Your task to perform on an android device: Open Yahoo.com Image 0: 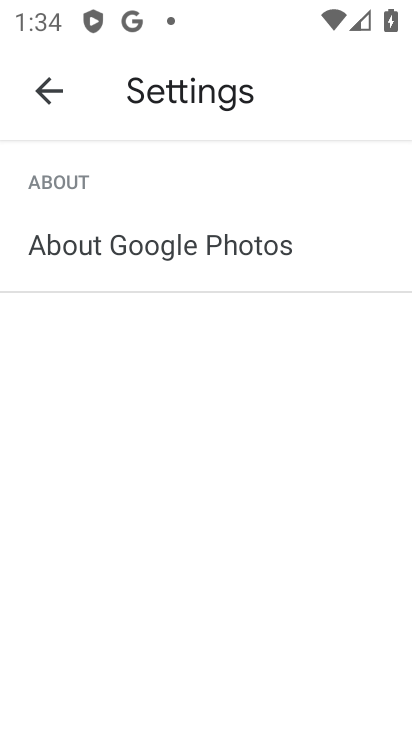
Step 0: press home button
Your task to perform on an android device: Open Yahoo.com Image 1: 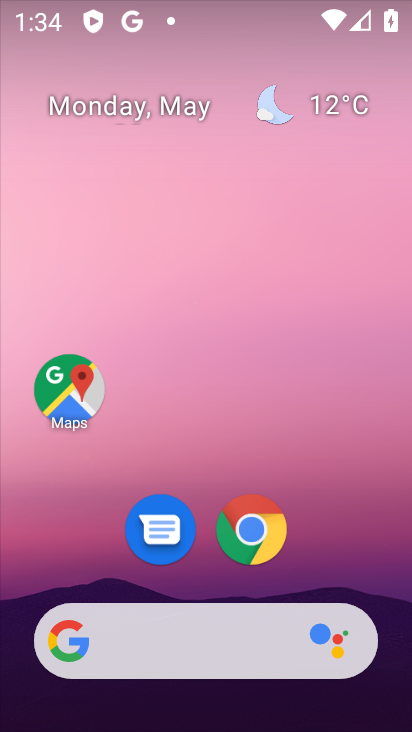
Step 1: click (252, 528)
Your task to perform on an android device: Open Yahoo.com Image 2: 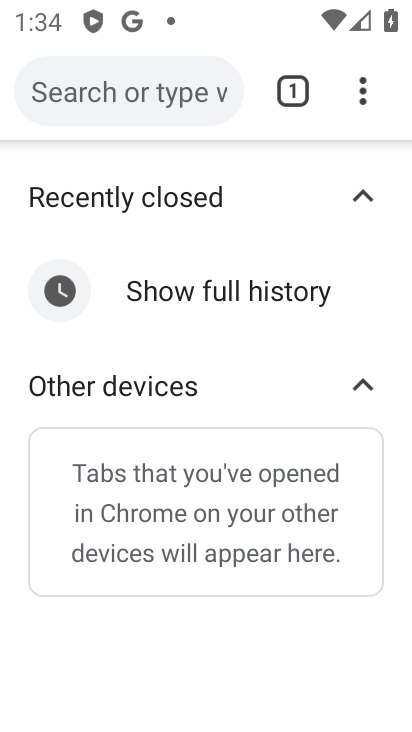
Step 2: click (122, 88)
Your task to perform on an android device: Open Yahoo.com Image 3: 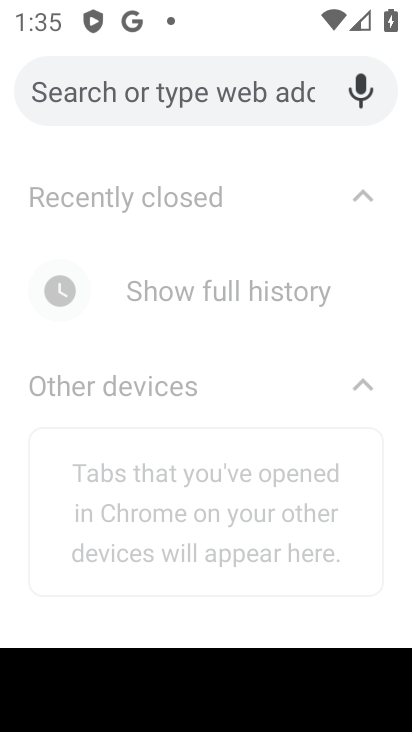
Step 3: type "yahoo.com"
Your task to perform on an android device: Open Yahoo.com Image 4: 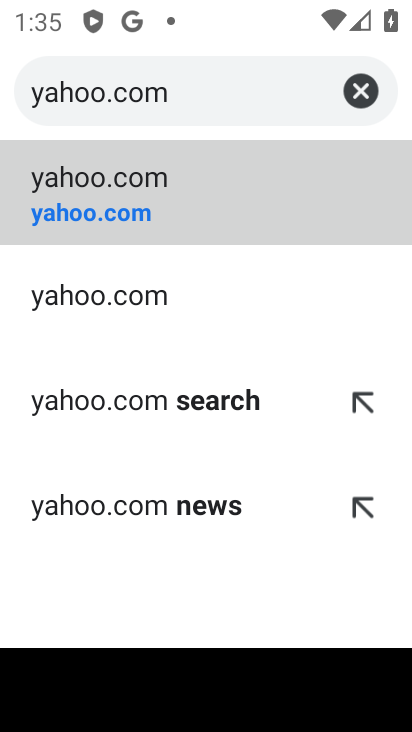
Step 4: click (131, 183)
Your task to perform on an android device: Open Yahoo.com Image 5: 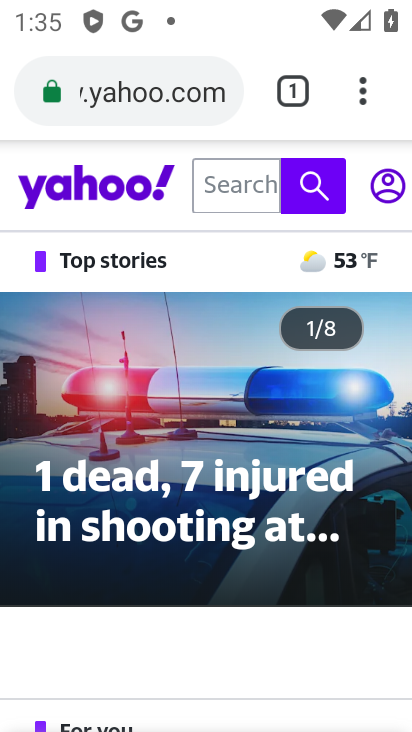
Step 5: task complete